Your task to perform on an android device: turn pop-ups off in chrome Image 0: 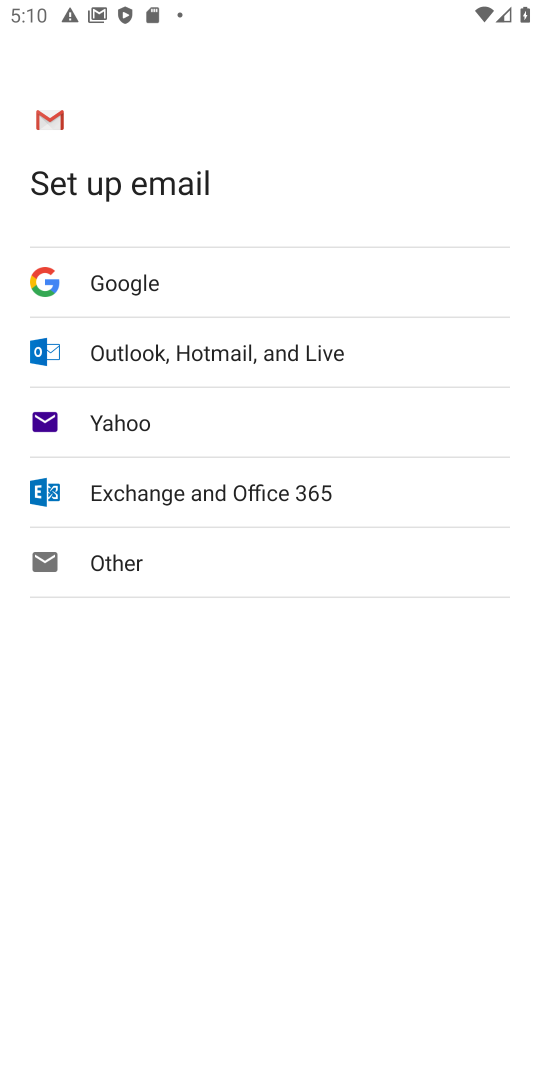
Step 0: press home button
Your task to perform on an android device: turn pop-ups off in chrome Image 1: 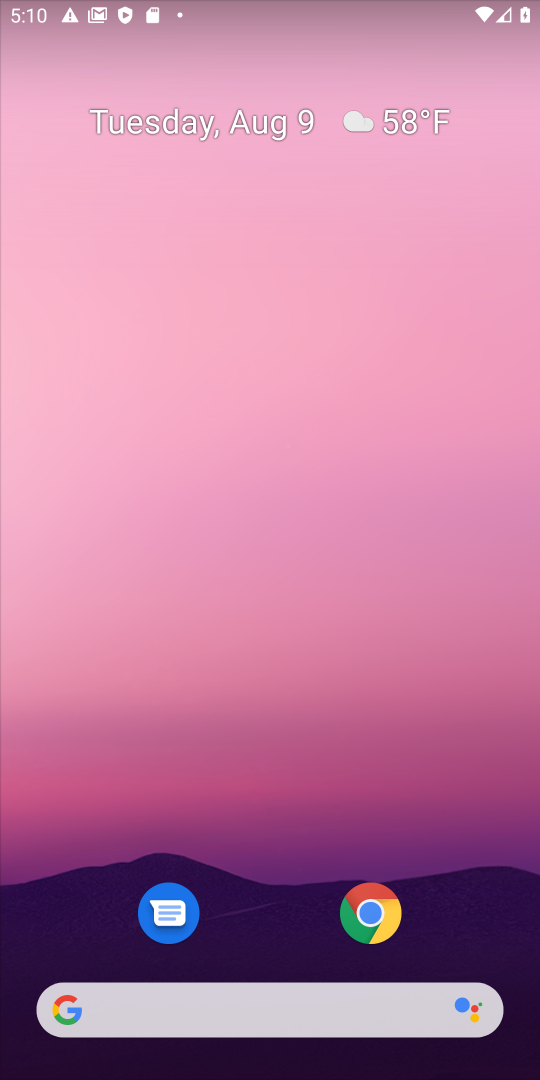
Step 1: click (378, 920)
Your task to perform on an android device: turn pop-ups off in chrome Image 2: 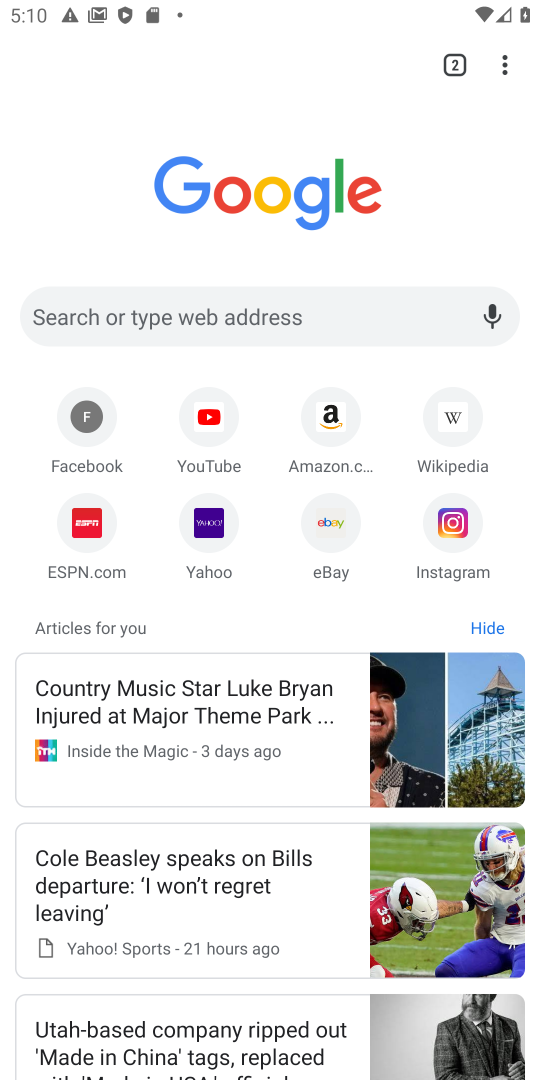
Step 2: click (511, 60)
Your task to perform on an android device: turn pop-ups off in chrome Image 3: 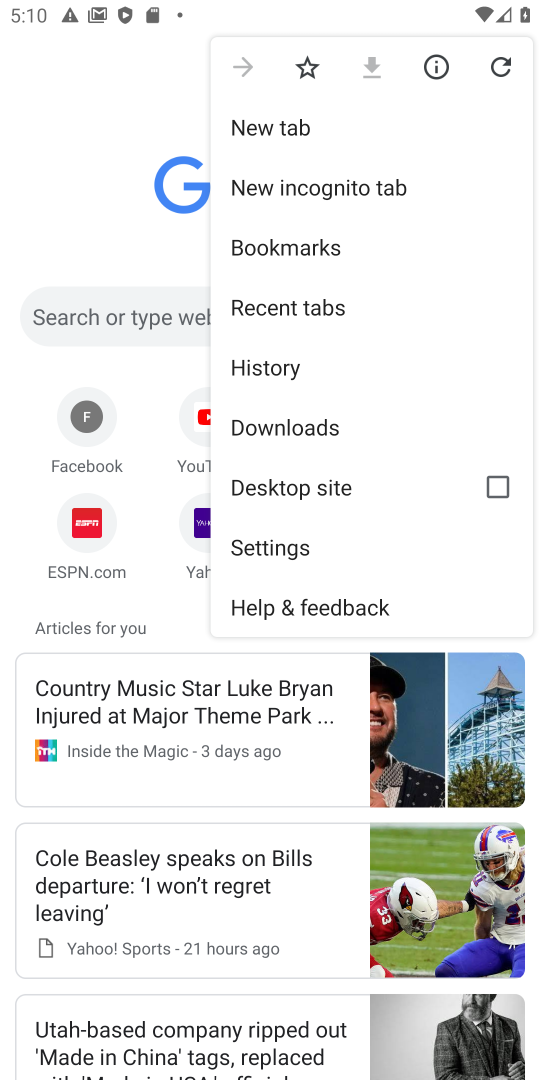
Step 3: click (350, 543)
Your task to perform on an android device: turn pop-ups off in chrome Image 4: 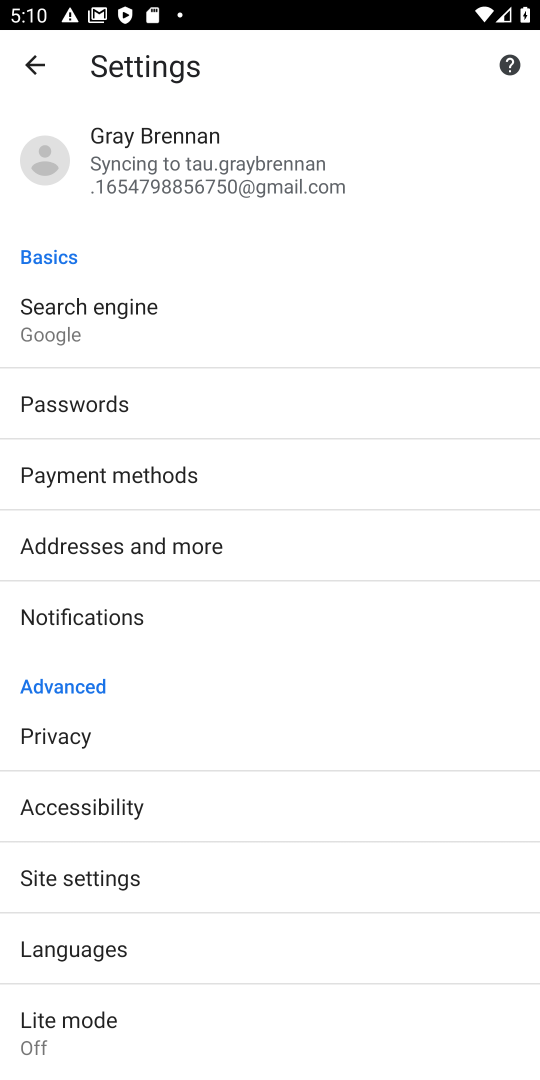
Step 4: click (218, 882)
Your task to perform on an android device: turn pop-ups off in chrome Image 5: 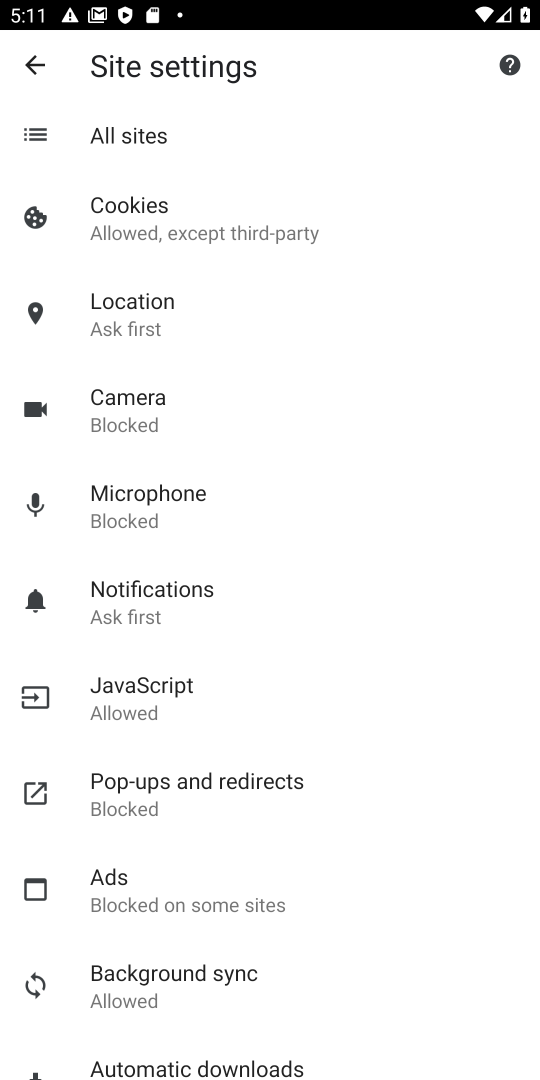
Step 5: click (169, 803)
Your task to perform on an android device: turn pop-ups off in chrome Image 6: 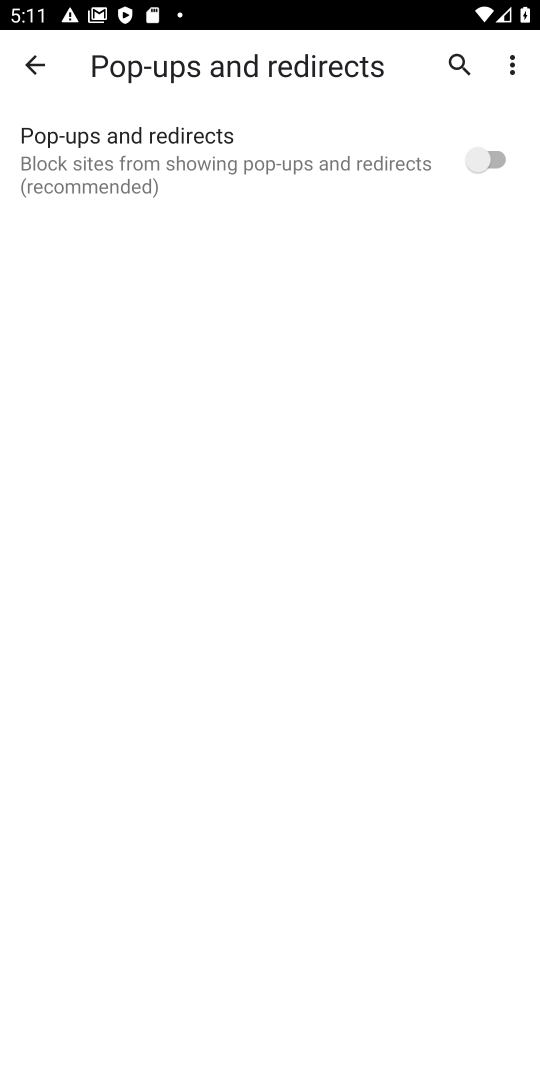
Step 6: task complete